Your task to perform on an android device: open a new tab in the chrome app Image 0: 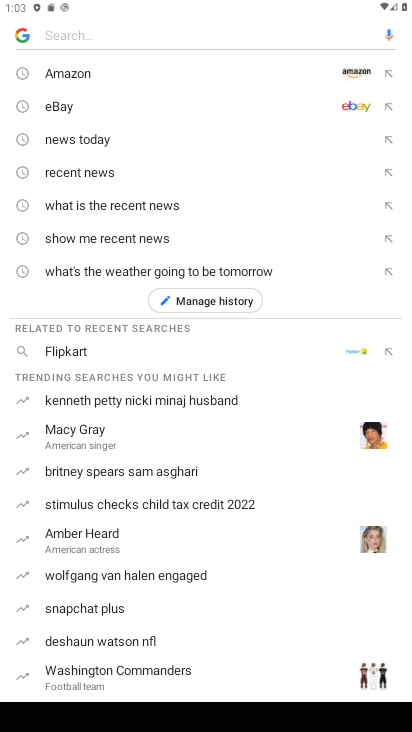
Step 0: press back button
Your task to perform on an android device: open a new tab in the chrome app Image 1: 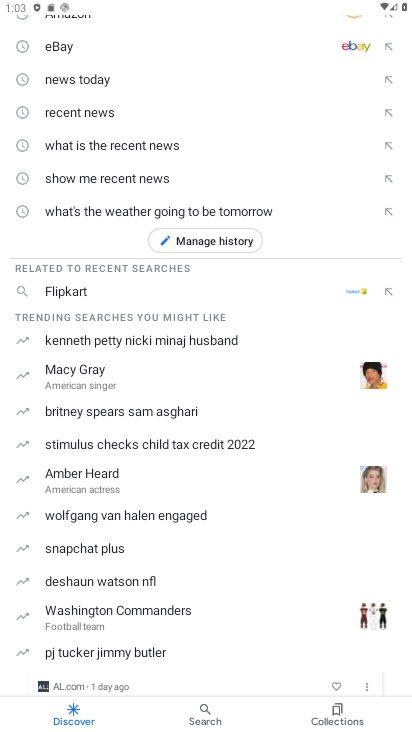
Step 1: press back button
Your task to perform on an android device: open a new tab in the chrome app Image 2: 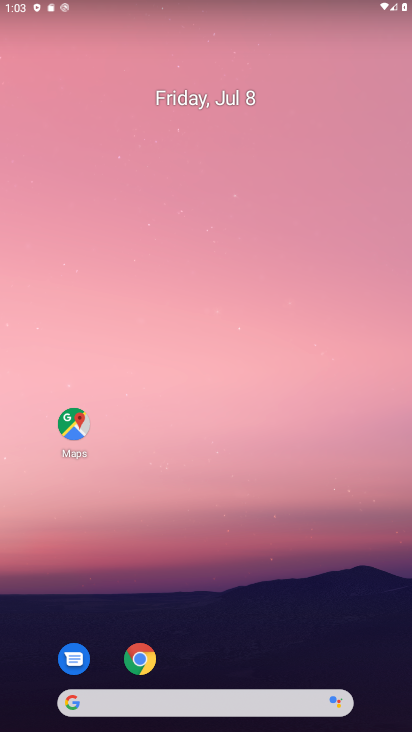
Step 2: click (144, 660)
Your task to perform on an android device: open a new tab in the chrome app Image 3: 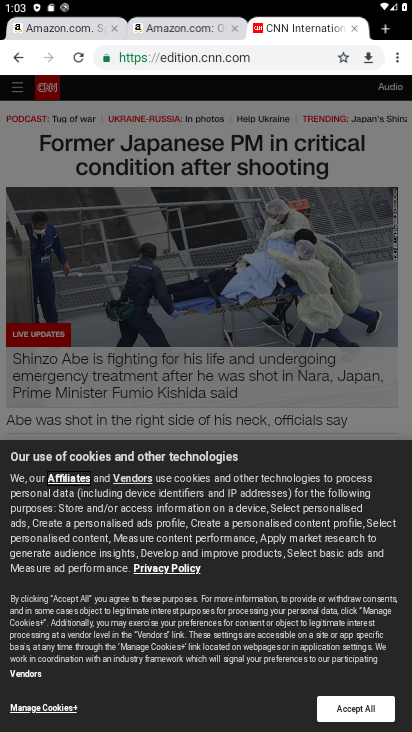
Step 3: click (385, 34)
Your task to perform on an android device: open a new tab in the chrome app Image 4: 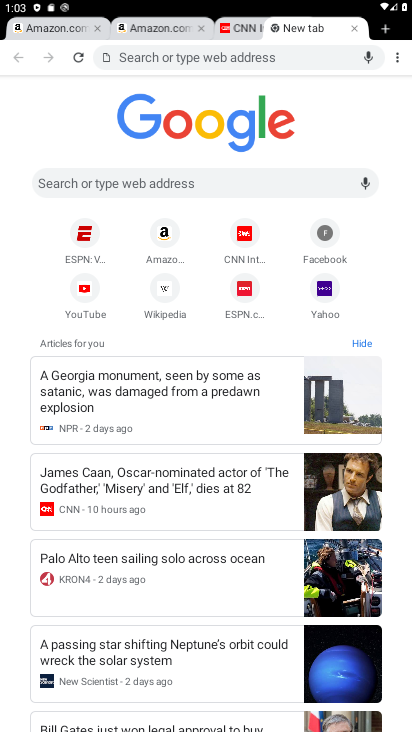
Step 4: task complete